Your task to perform on an android device: create a new album in the google photos Image 0: 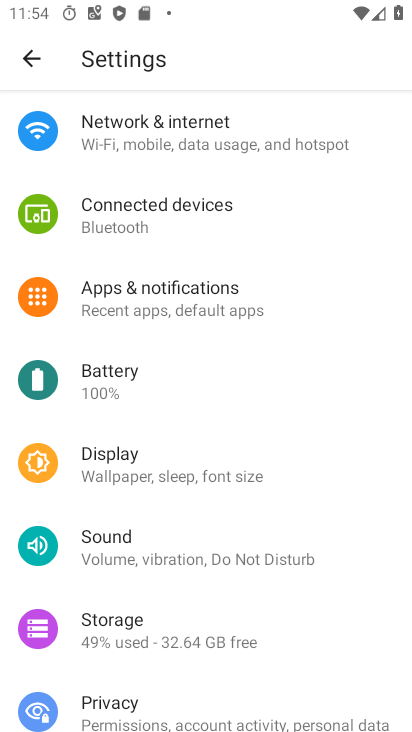
Step 0: press home button
Your task to perform on an android device: create a new album in the google photos Image 1: 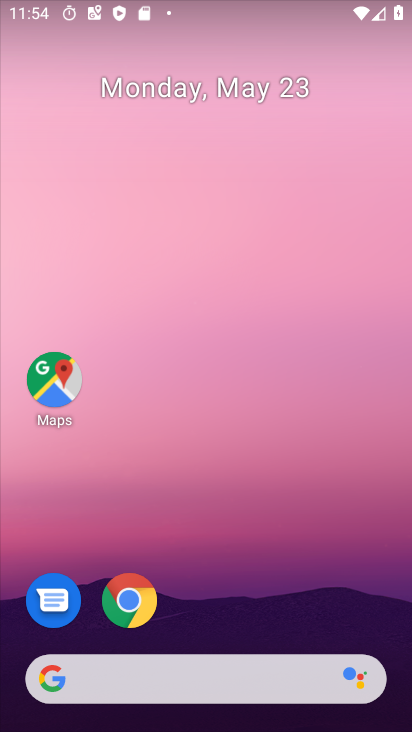
Step 1: drag from (242, 493) to (271, 174)
Your task to perform on an android device: create a new album in the google photos Image 2: 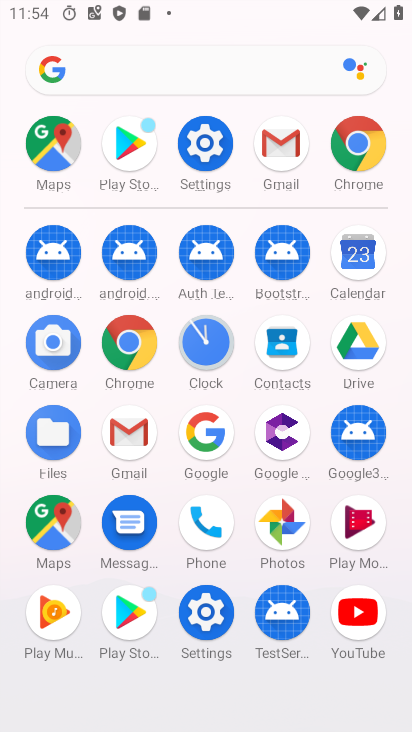
Step 2: click (286, 526)
Your task to perform on an android device: create a new album in the google photos Image 3: 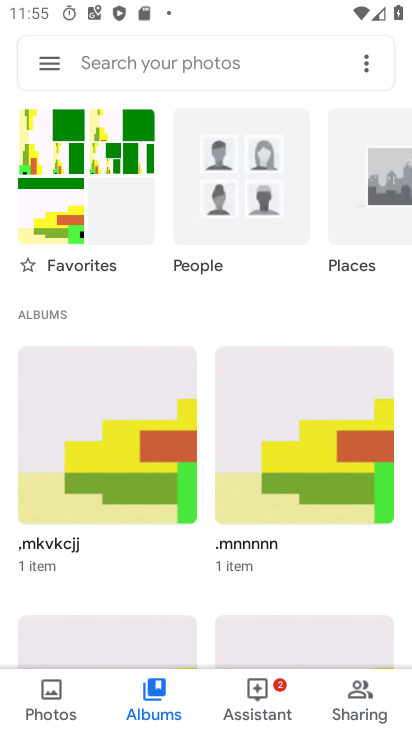
Step 3: click (361, 56)
Your task to perform on an android device: create a new album in the google photos Image 4: 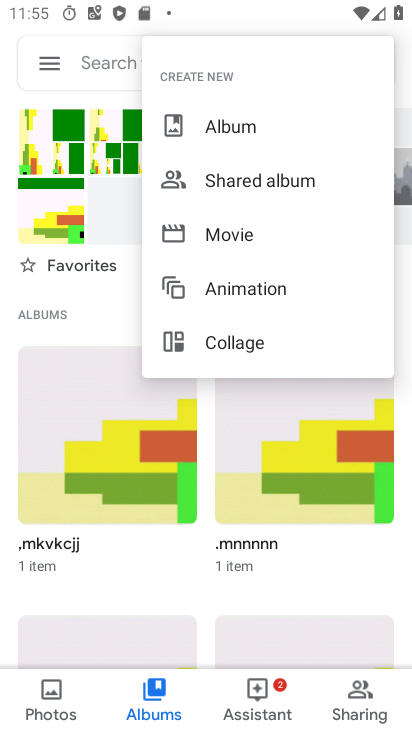
Step 4: click (217, 129)
Your task to perform on an android device: create a new album in the google photos Image 5: 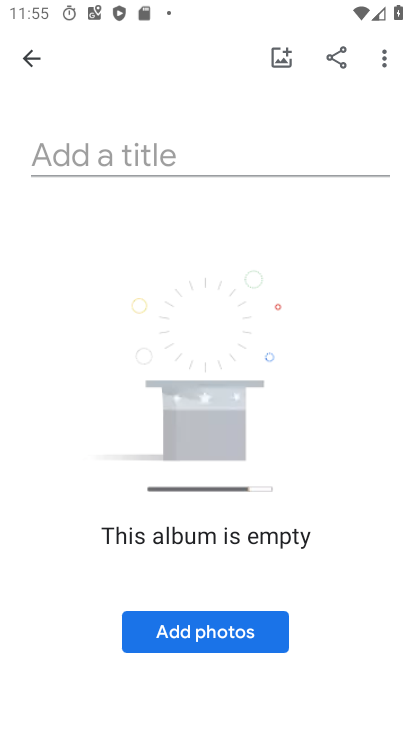
Step 5: click (213, 153)
Your task to perform on an android device: create a new album in the google photos Image 6: 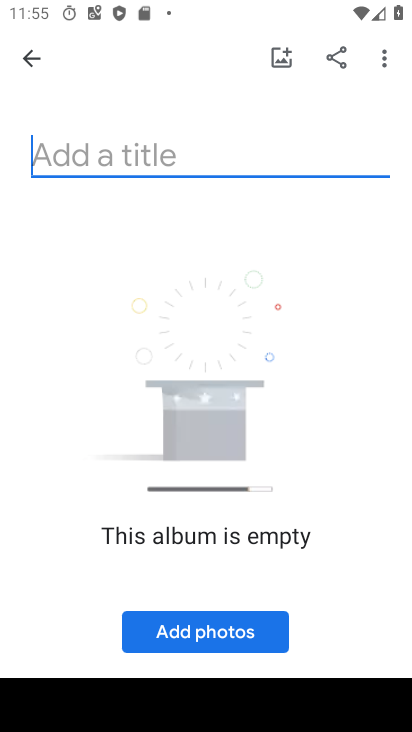
Step 6: type "hjjk"
Your task to perform on an android device: create a new album in the google photos Image 7: 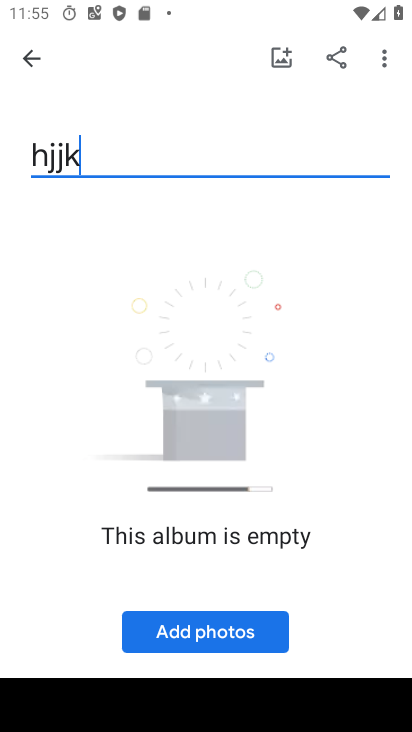
Step 7: type ""
Your task to perform on an android device: create a new album in the google photos Image 8: 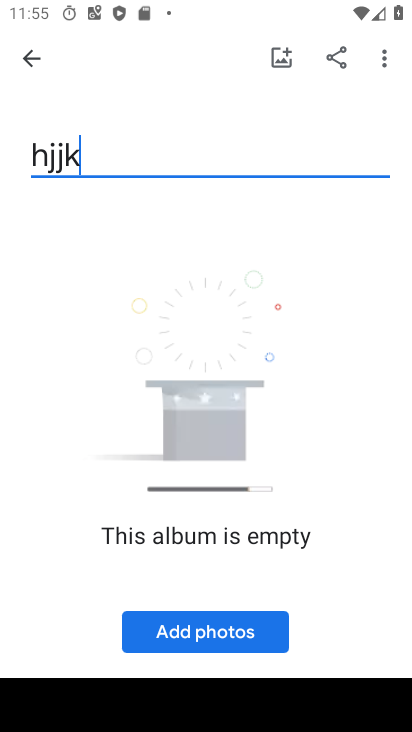
Step 8: click (266, 627)
Your task to perform on an android device: create a new album in the google photos Image 9: 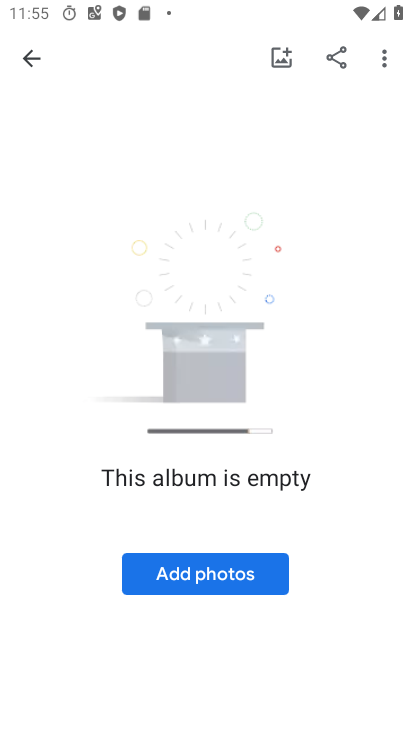
Step 9: click (264, 580)
Your task to perform on an android device: create a new album in the google photos Image 10: 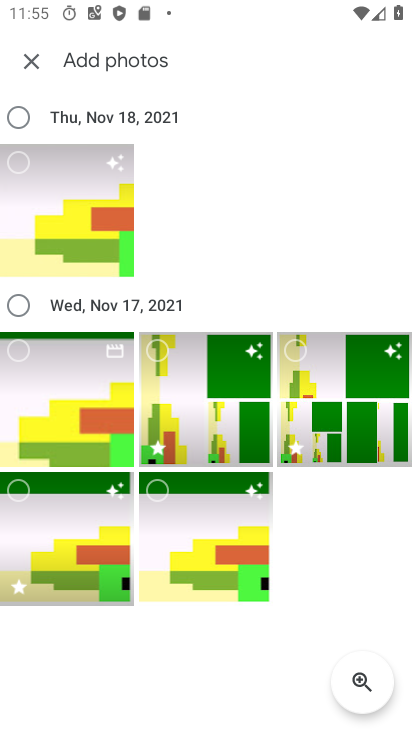
Step 10: click (92, 191)
Your task to perform on an android device: create a new album in the google photos Image 11: 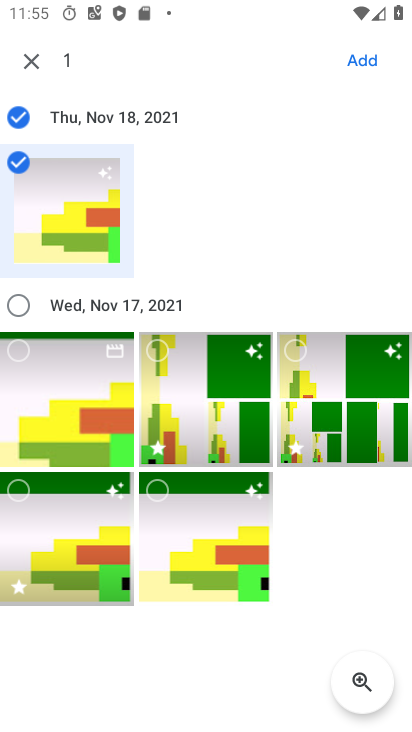
Step 11: click (365, 60)
Your task to perform on an android device: create a new album in the google photos Image 12: 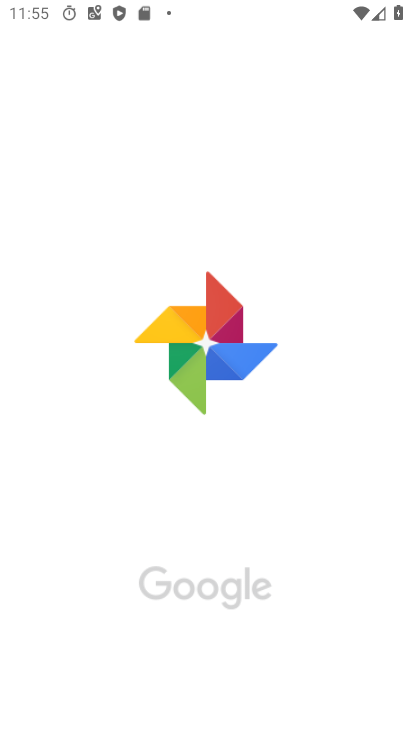
Step 12: task complete